Your task to perform on an android device: allow cookies in the chrome app Image 0: 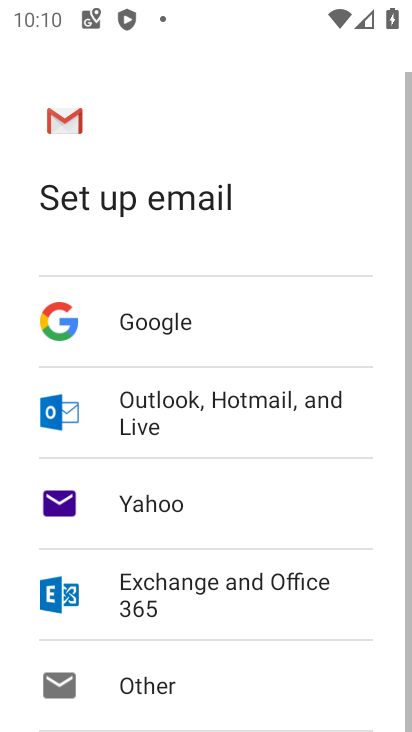
Step 0: press home button
Your task to perform on an android device: allow cookies in the chrome app Image 1: 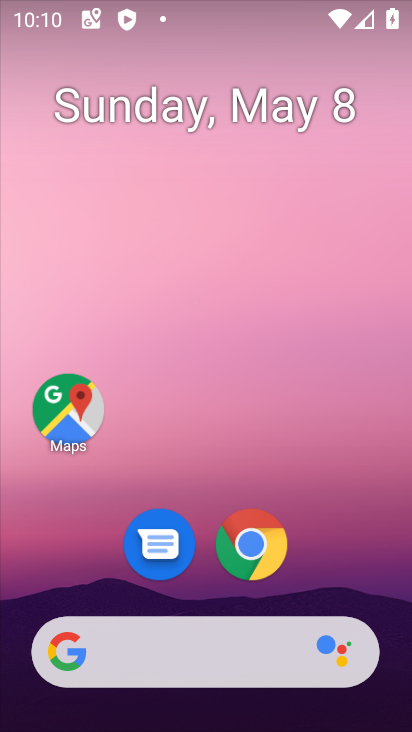
Step 1: click (265, 552)
Your task to perform on an android device: allow cookies in the chrome app Image 2: 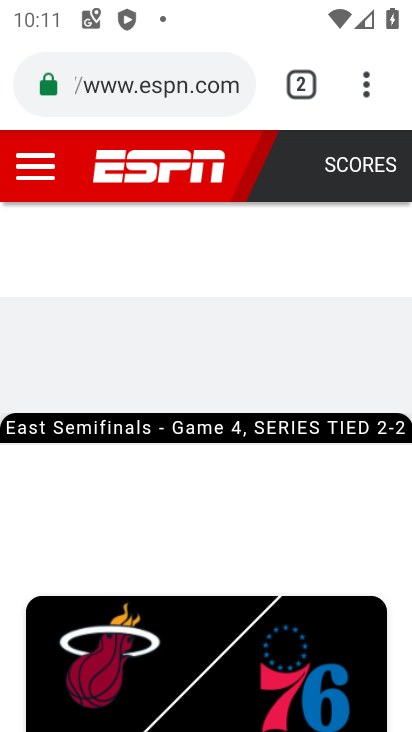
Step 2: click (365, 93)
Your task to perform on an android device: allow cookies in the chrome app Image 3: 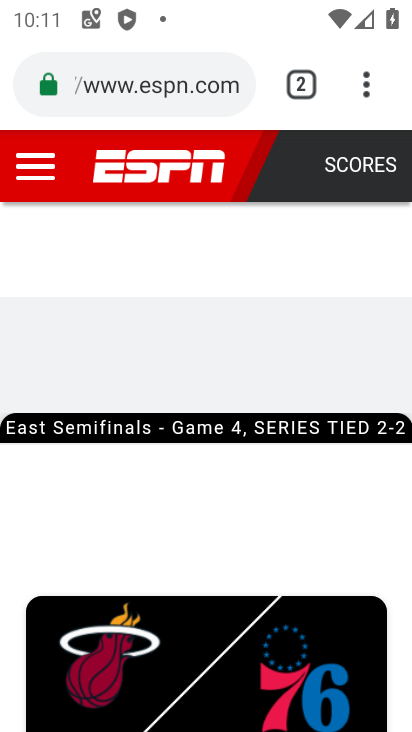
Step 3: click (365, 91)
Your task to perform on an android device: allow cookies in the chrome app Image 4: 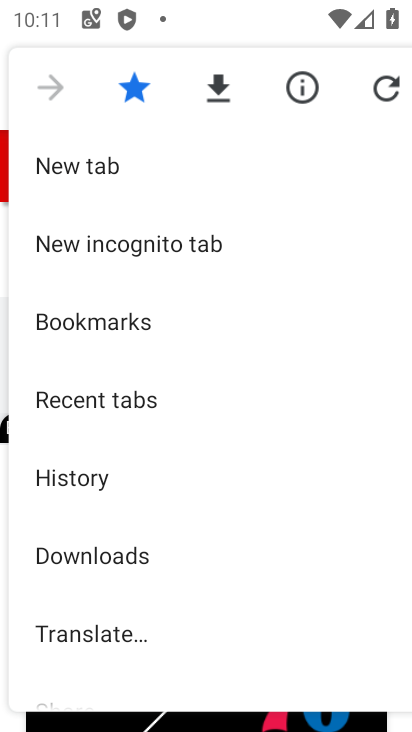
Step 4: drag from (165, 679) to (158, 323)
Your task to perform on an android device: allow cookies in the chrome app Image 5: 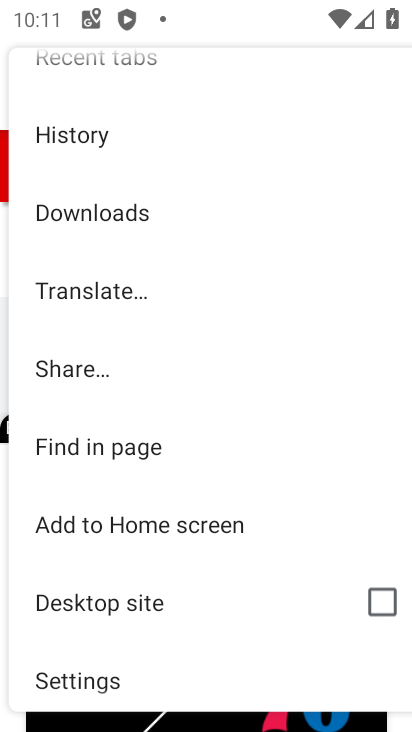
Step 5: click (173, 687)
Your task to perform on an android device: allow cookies in the chrome app Image 6: 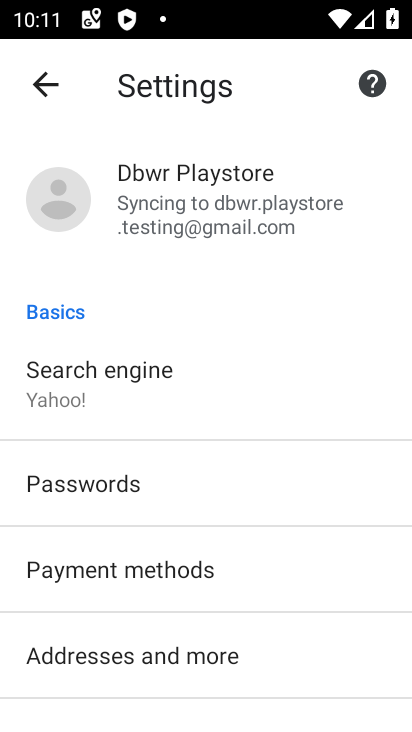
Step 6: drag from (173, 687) to (173, 279)
Your task to perform on an android device: allow cookies in the chrome app Image 7: 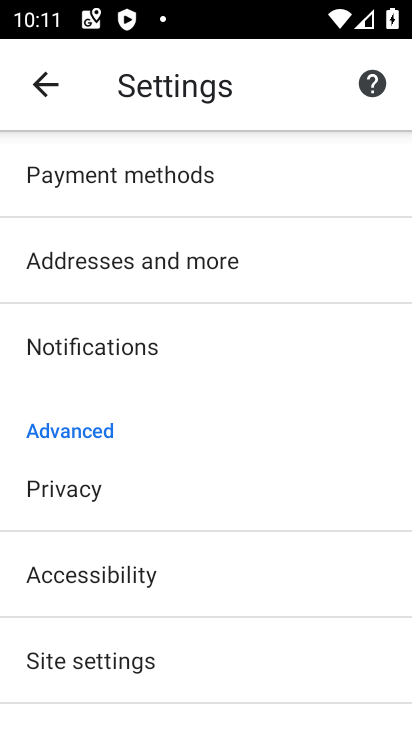
Step 7: click (133, 648)
Your task to perform on an android device: allow cookies in the chrome app Image 8: 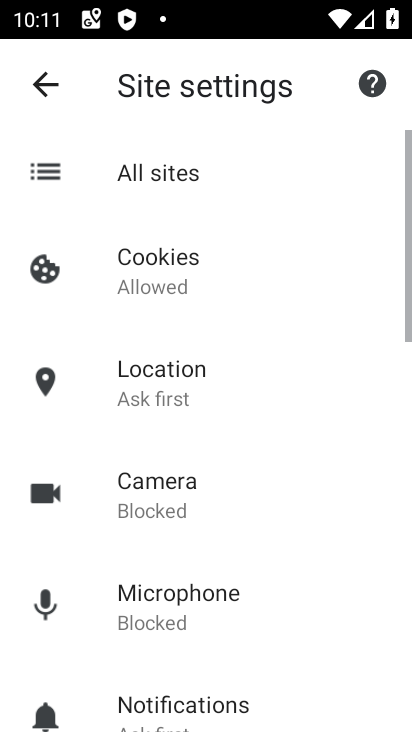
Step 8: task complete